Your task to perform on an android device: Check the settings for the Amazon Shopping app Image 0: 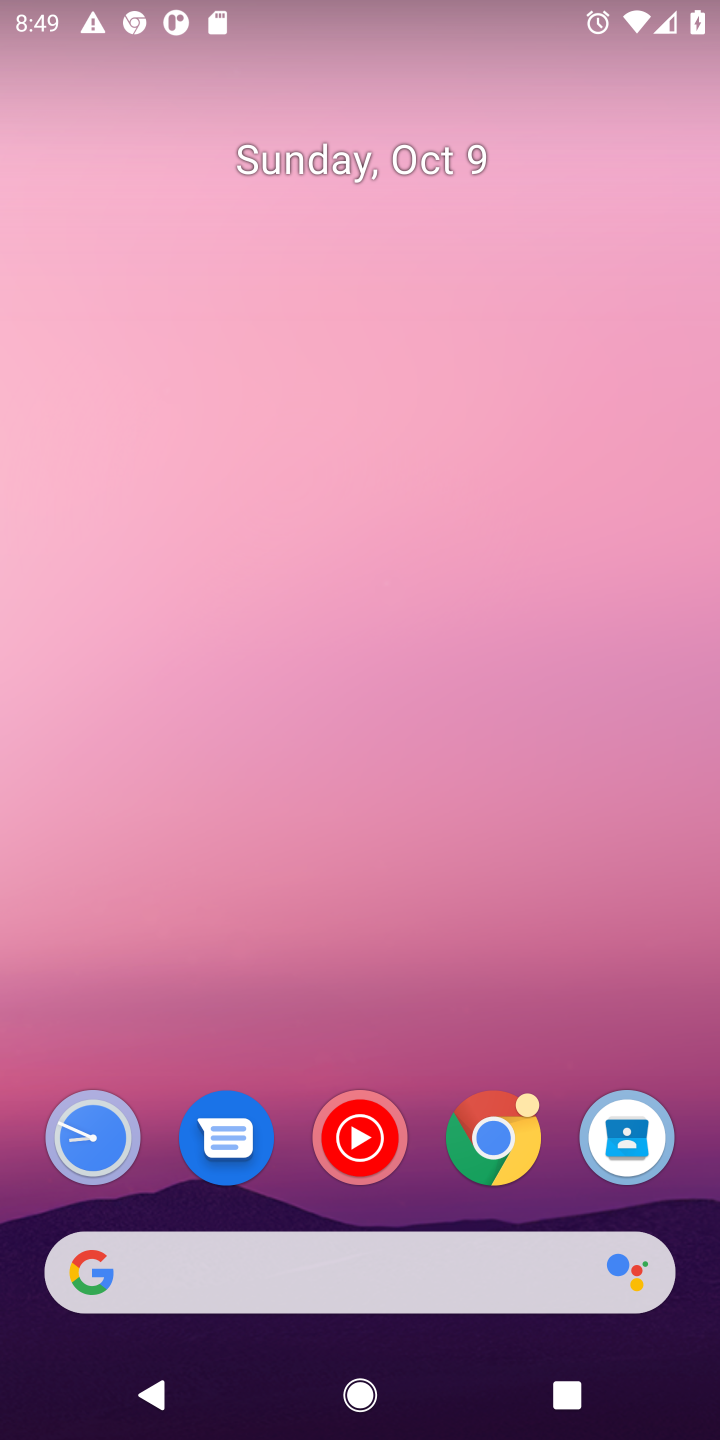
Step 0: drag from (233, 1231) to (292, 374)
Your task to perform on an android device: Check the settings for the Amazon Shopping app Image 1: 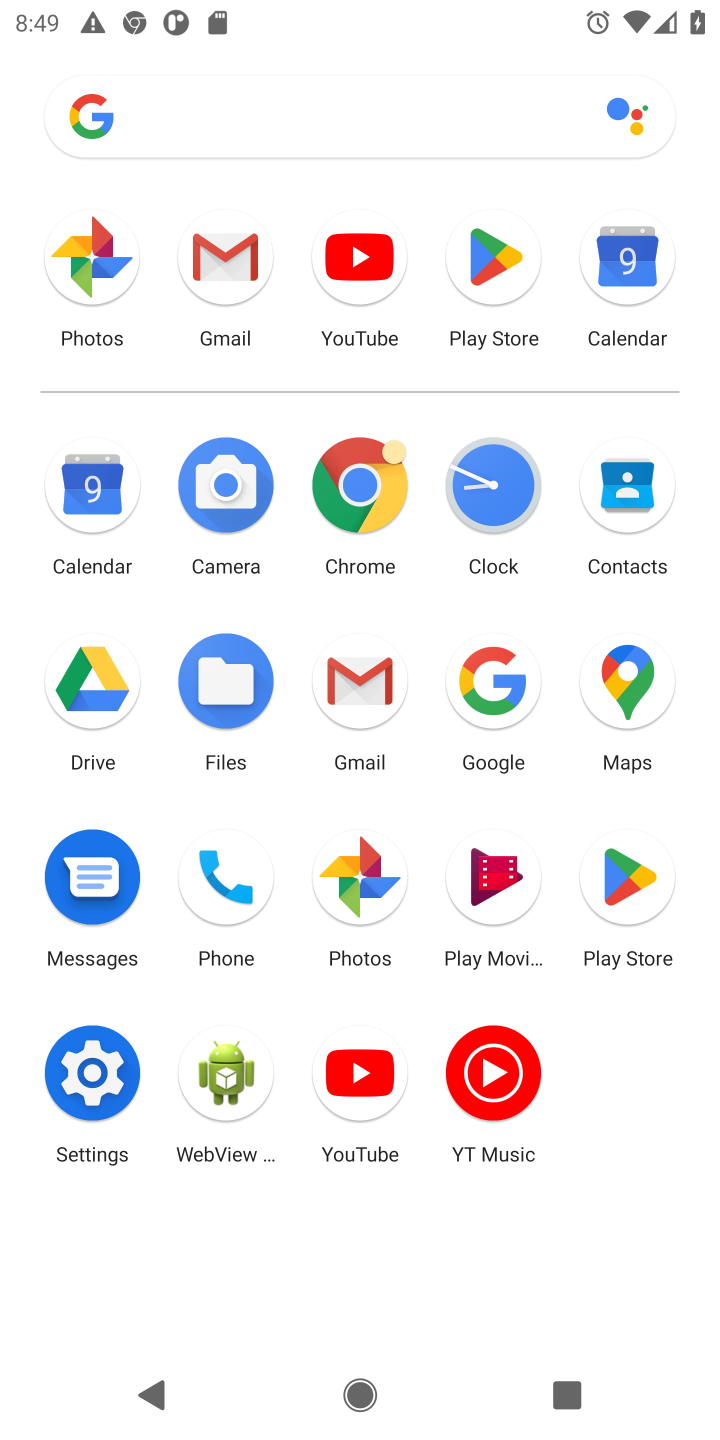
Step 1: click (479, 673)
Your task to perform on an android device: Check the settings for the Amazon Shopping app Image 2: 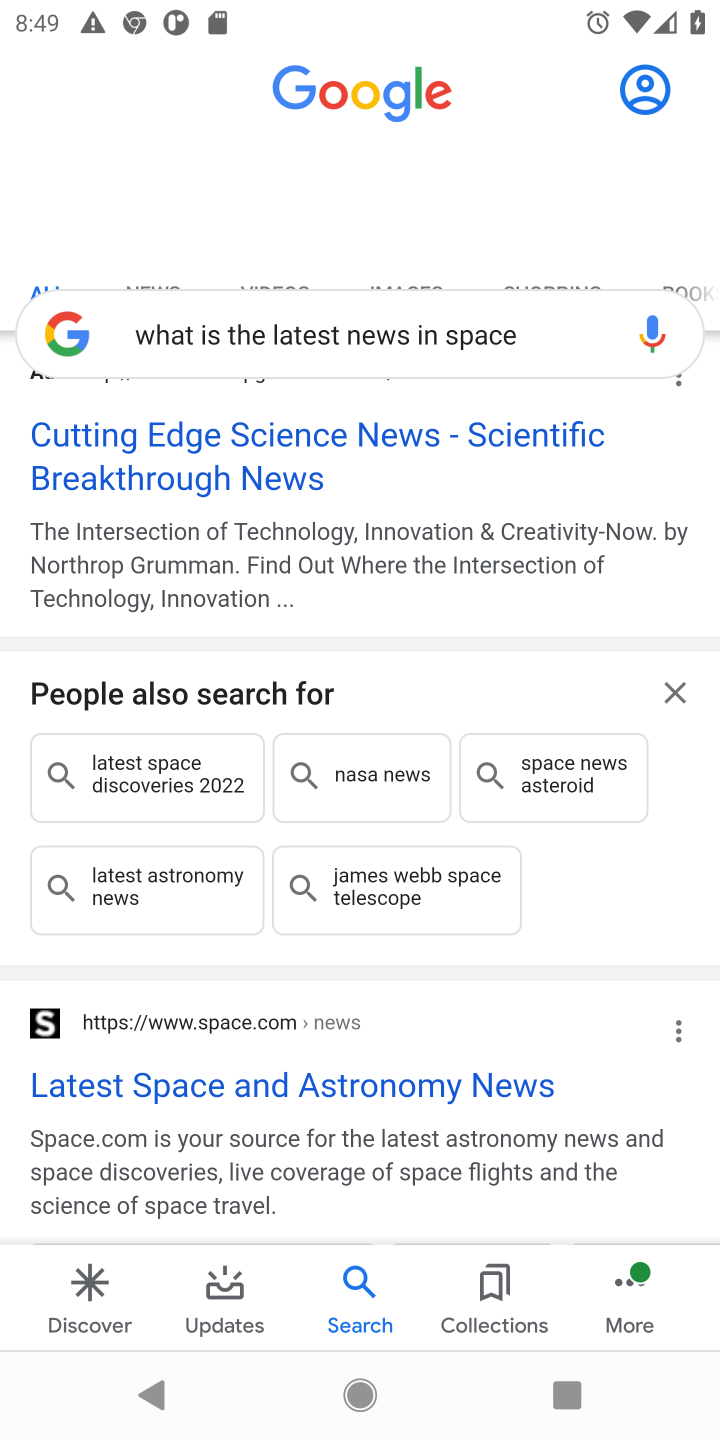
Step 2: click (395, 310)
Your task to perform on an android device: Check the settings for the Amazon Shopping app Image 3: 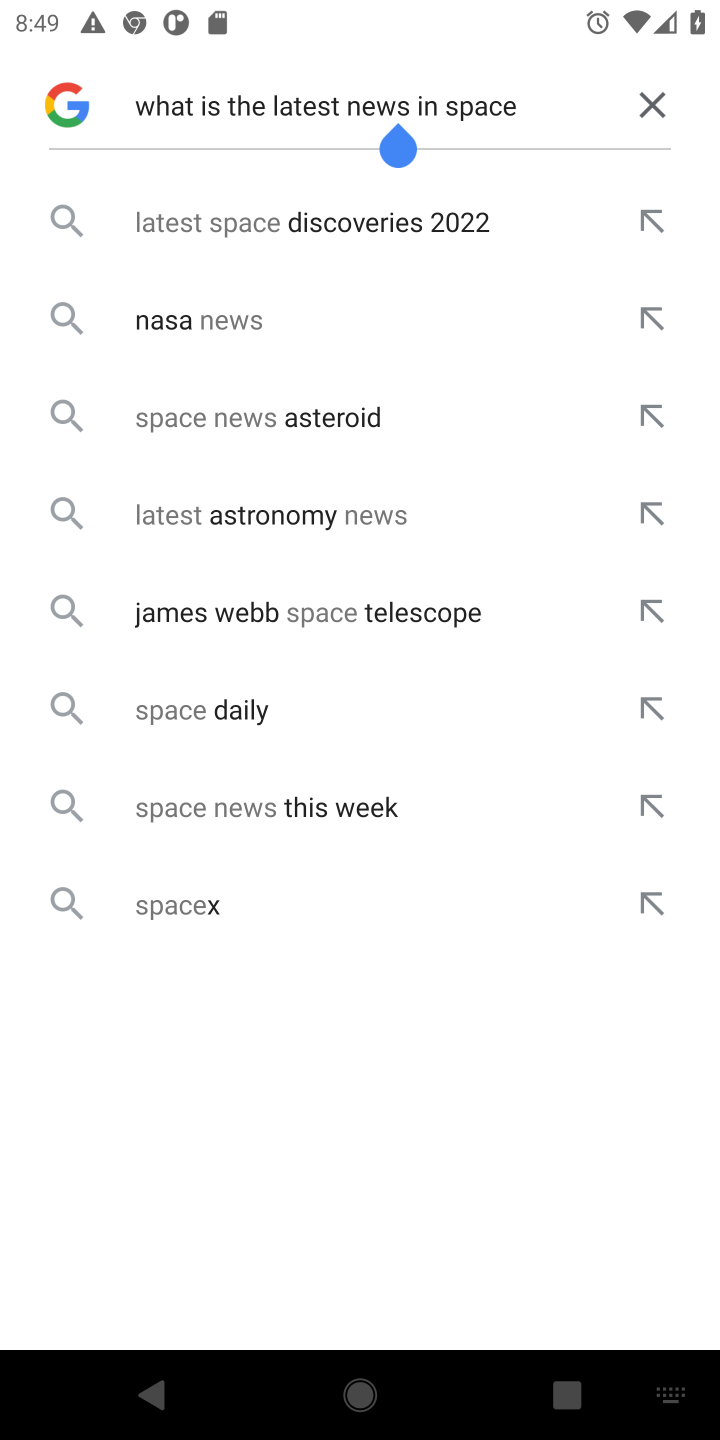
Step 3: click (643, 110)
Your task to perform on an android device: Check the settings for the Amazon Shopping app Image 4: 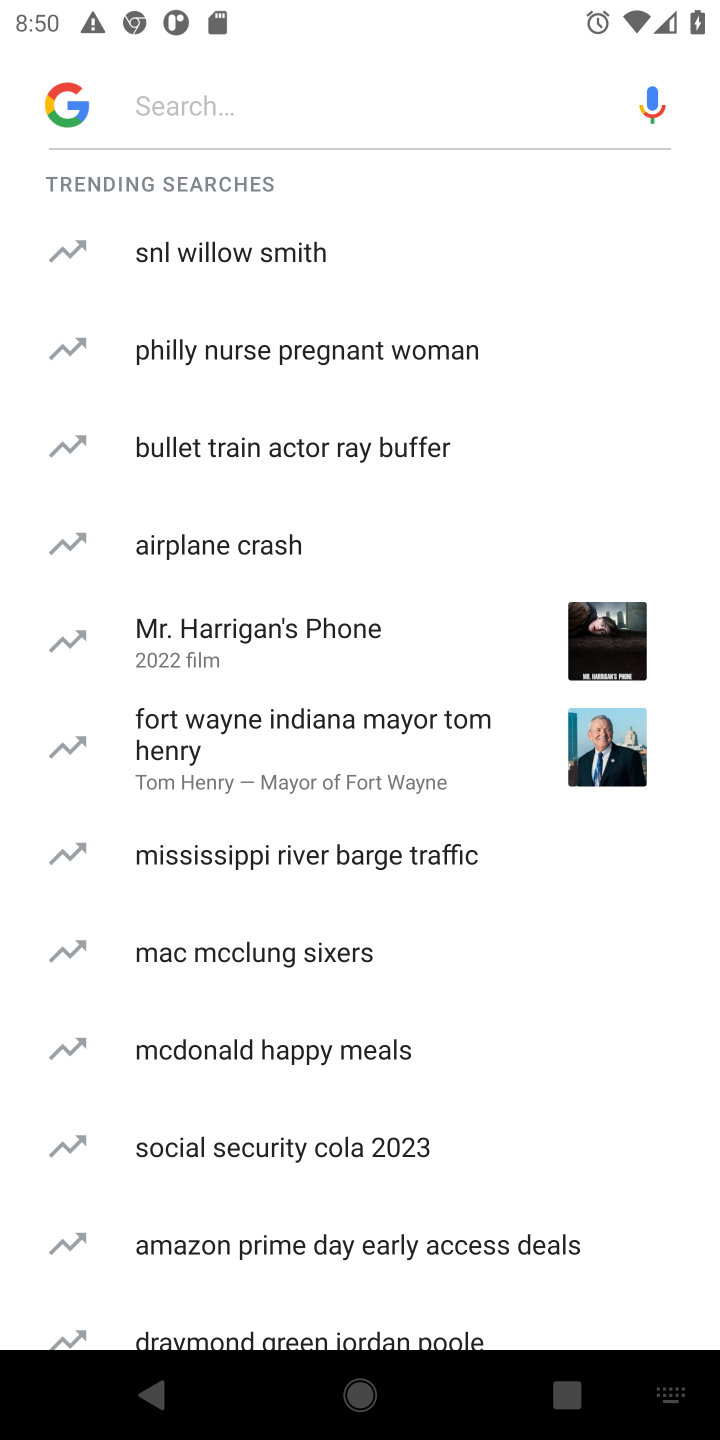
Step 4: click (304, 99)
Your task to perform on an android device: Check the settings for the Amazon Shopping app Image 5: 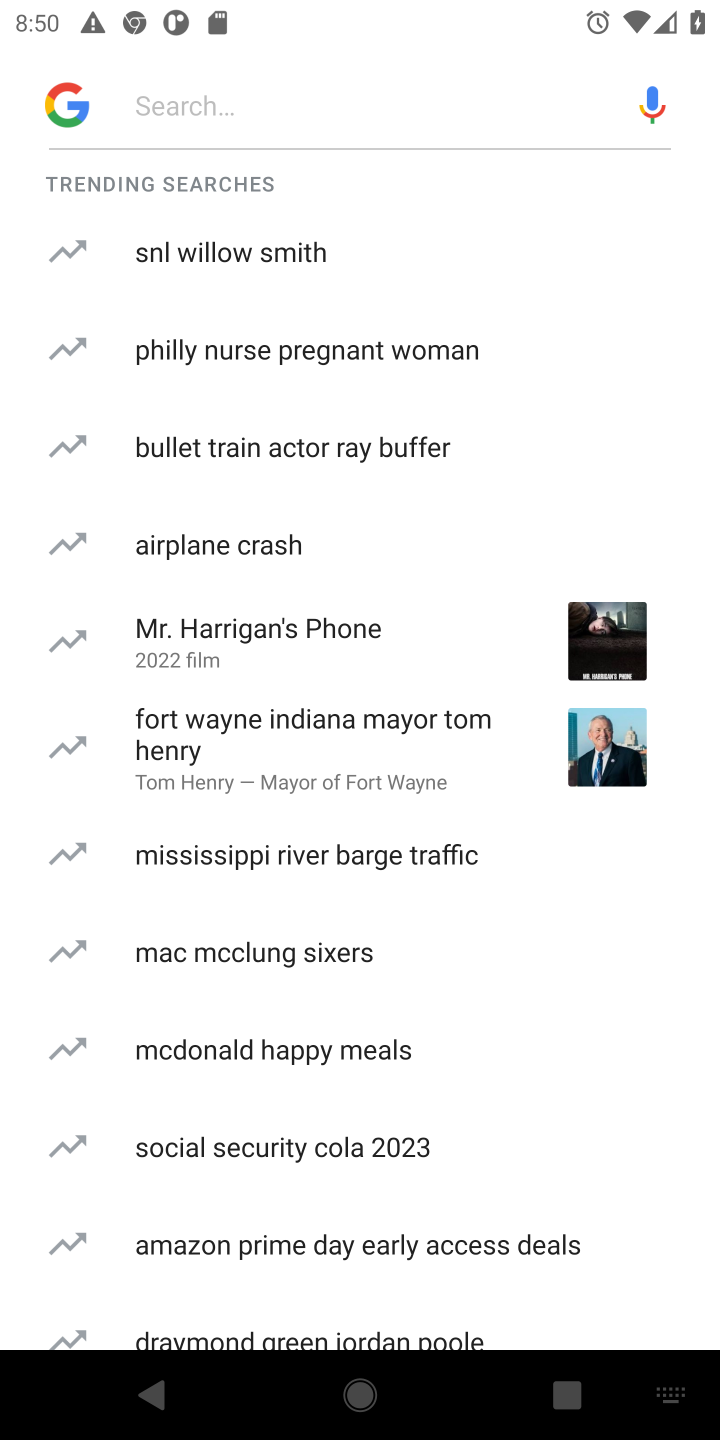
Step 5: type "Check the settings for the Amazon Shopping app "
Your task to perform on an android device: Check the settings for the Amazon Shopping app Image 6: 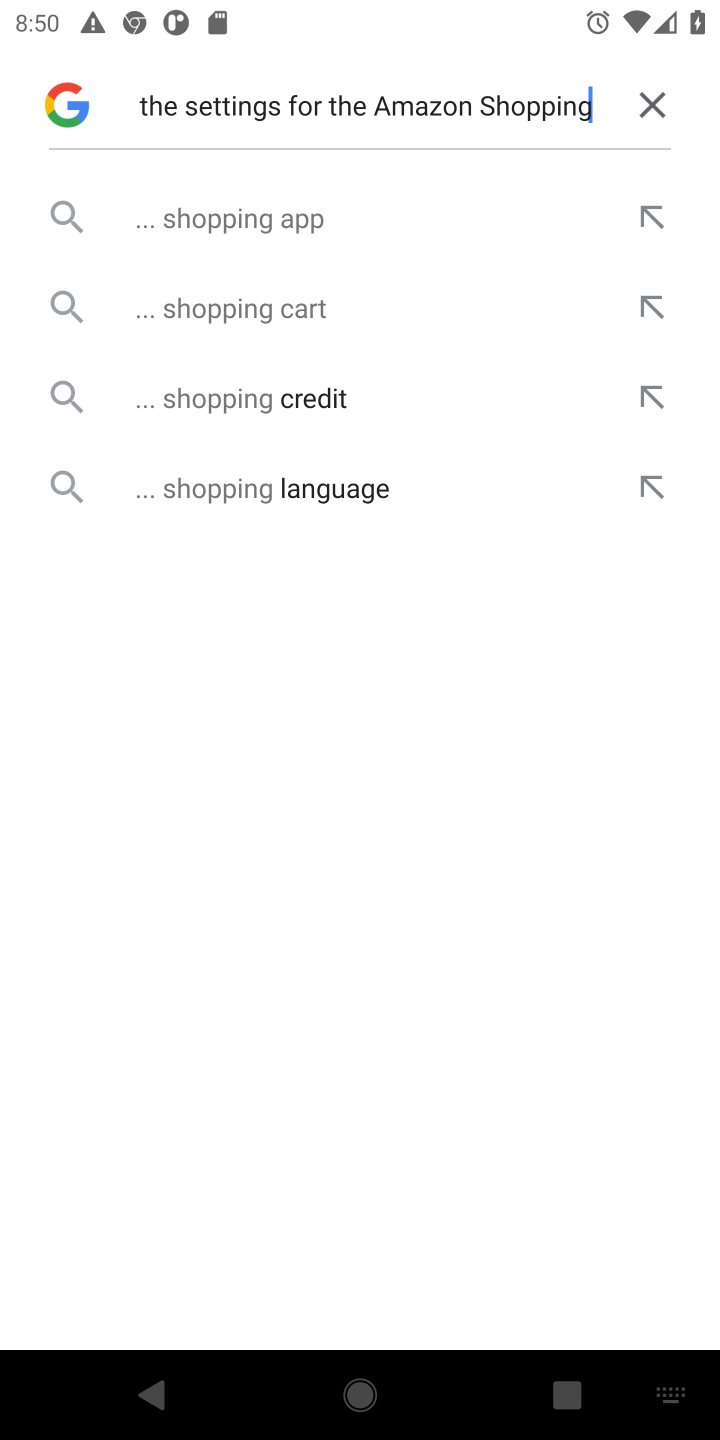
Step 6: click (240, 207)
Your task to perform on an android device: Check the settings for the Amazon Shopping app Image 7: 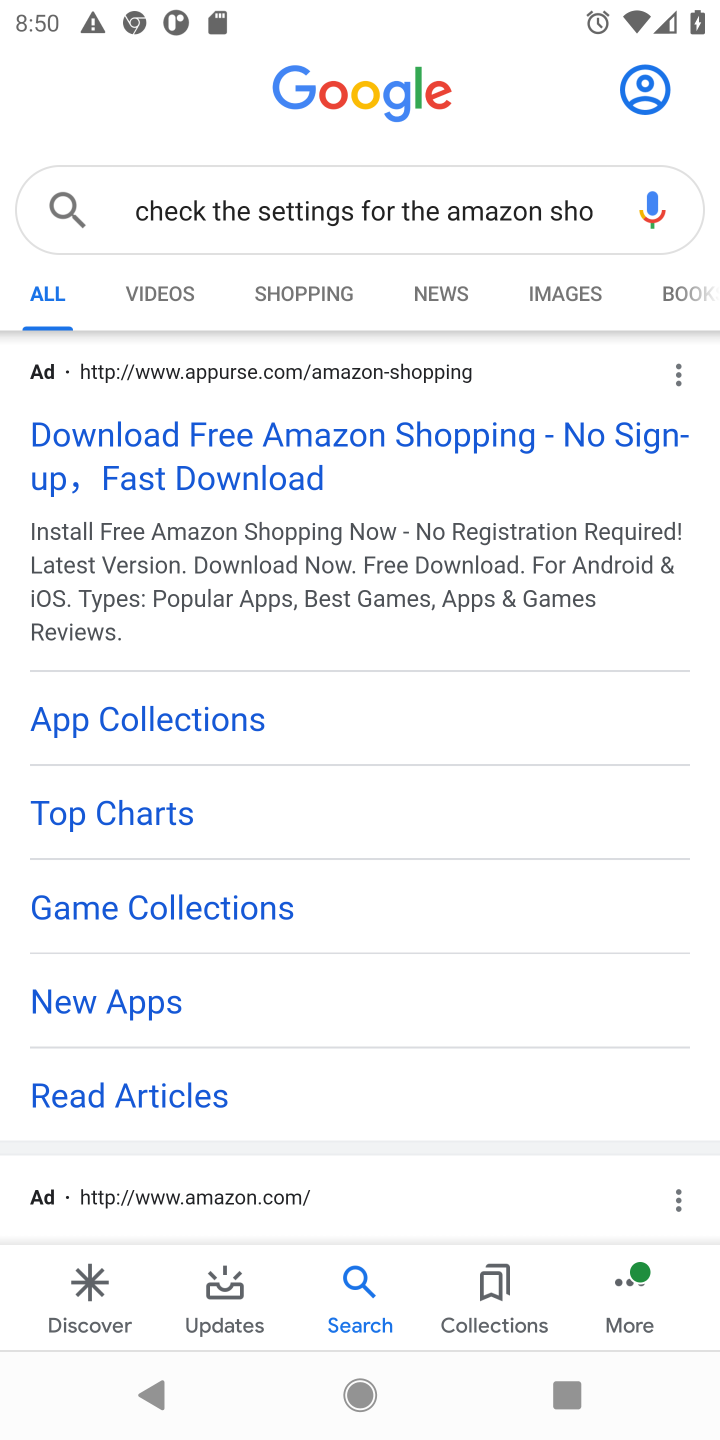
Step 7: click (232, 456)
Your task to perform on an android device: Check the settings for the Amazon Shopping app Image 8: 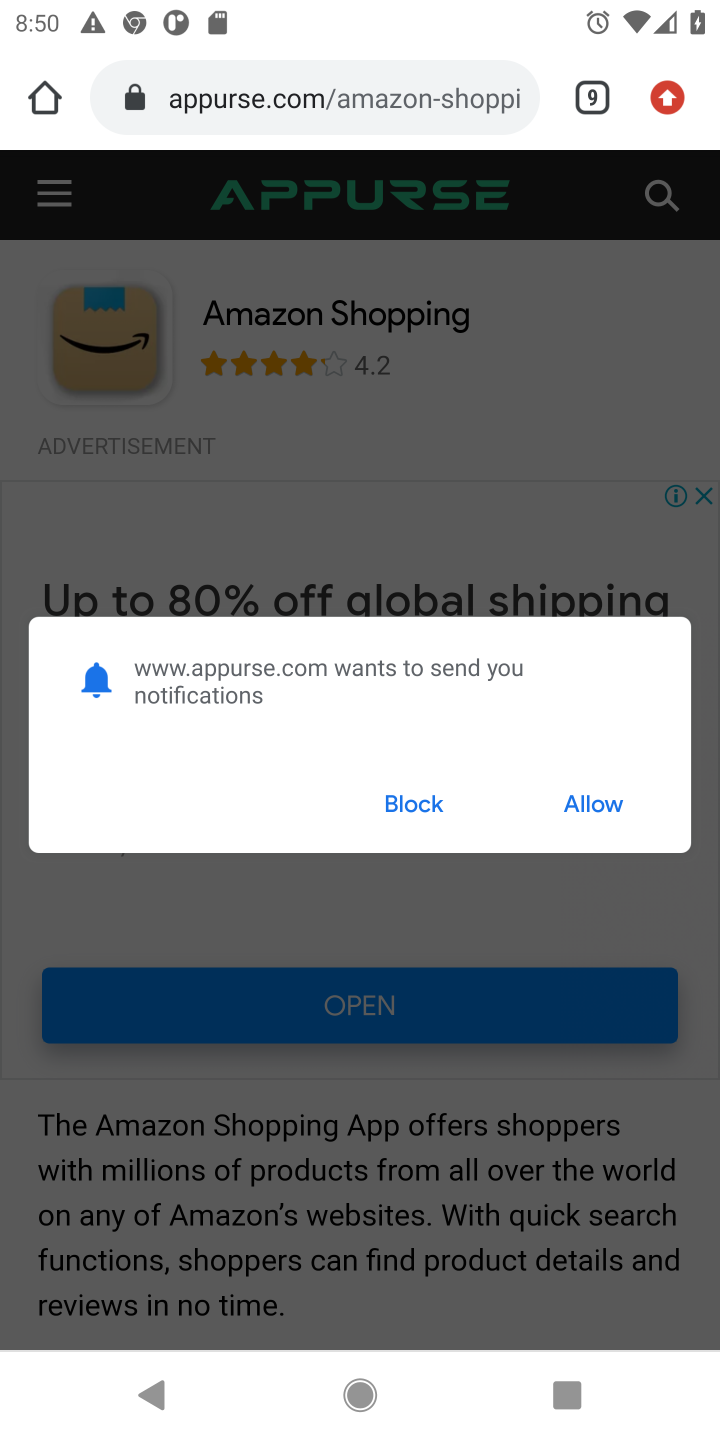
Step 8: click (595, 790)
Your task to perform on an android device: Check the settings for the Amazon Shopping app Image 9: 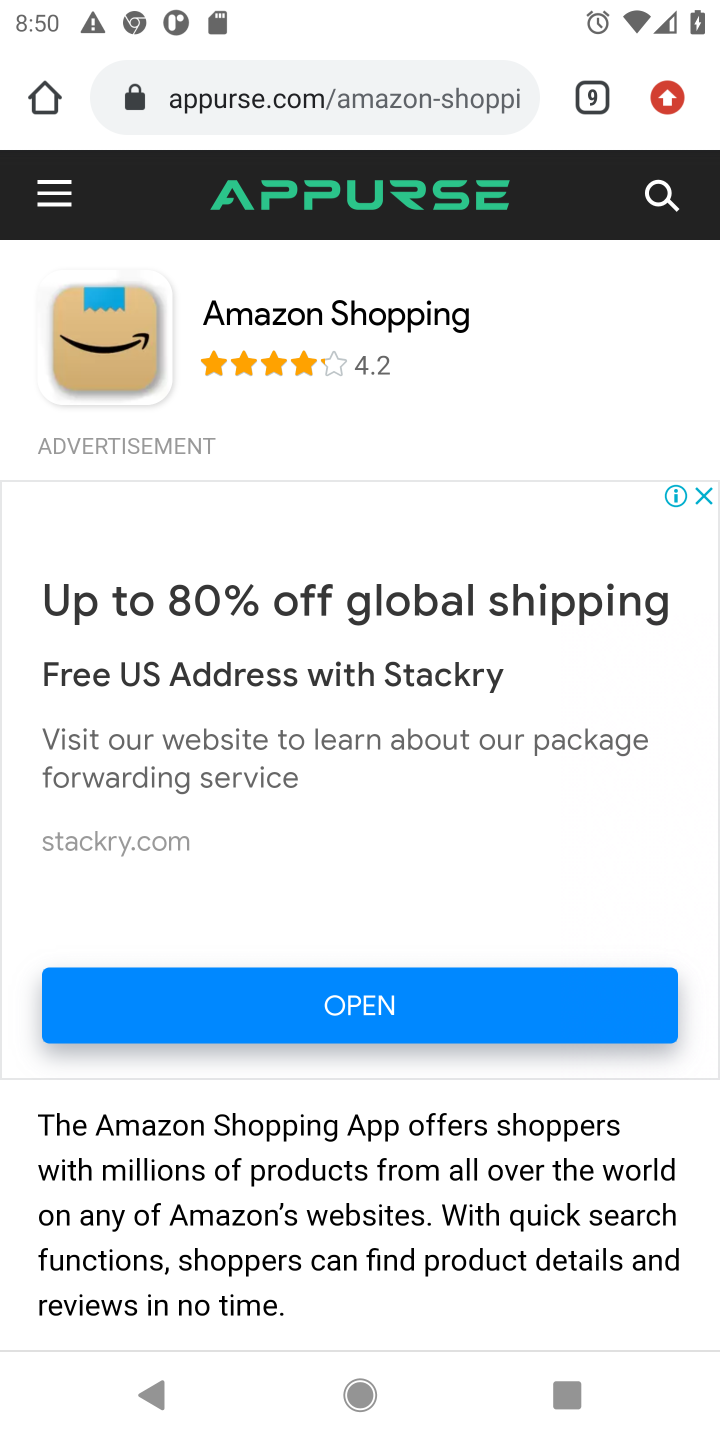
Step 9: click (331, 985)
Your task to perform on an android device: Check the settings for the Amazon Shopping app Image 10: 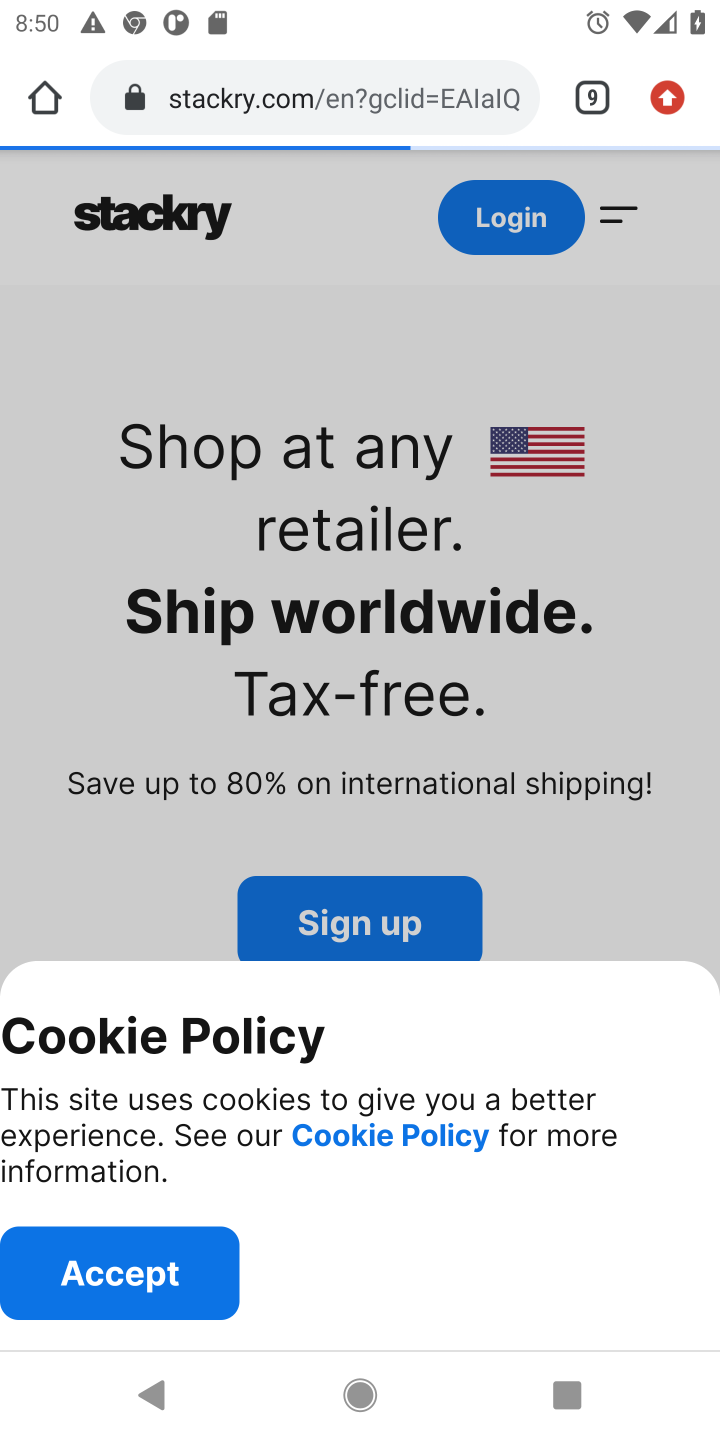
Step 10: click (169, 1254)
Your task to perform on an android device: Check the settings for the Amazon Shopping app Image 11: 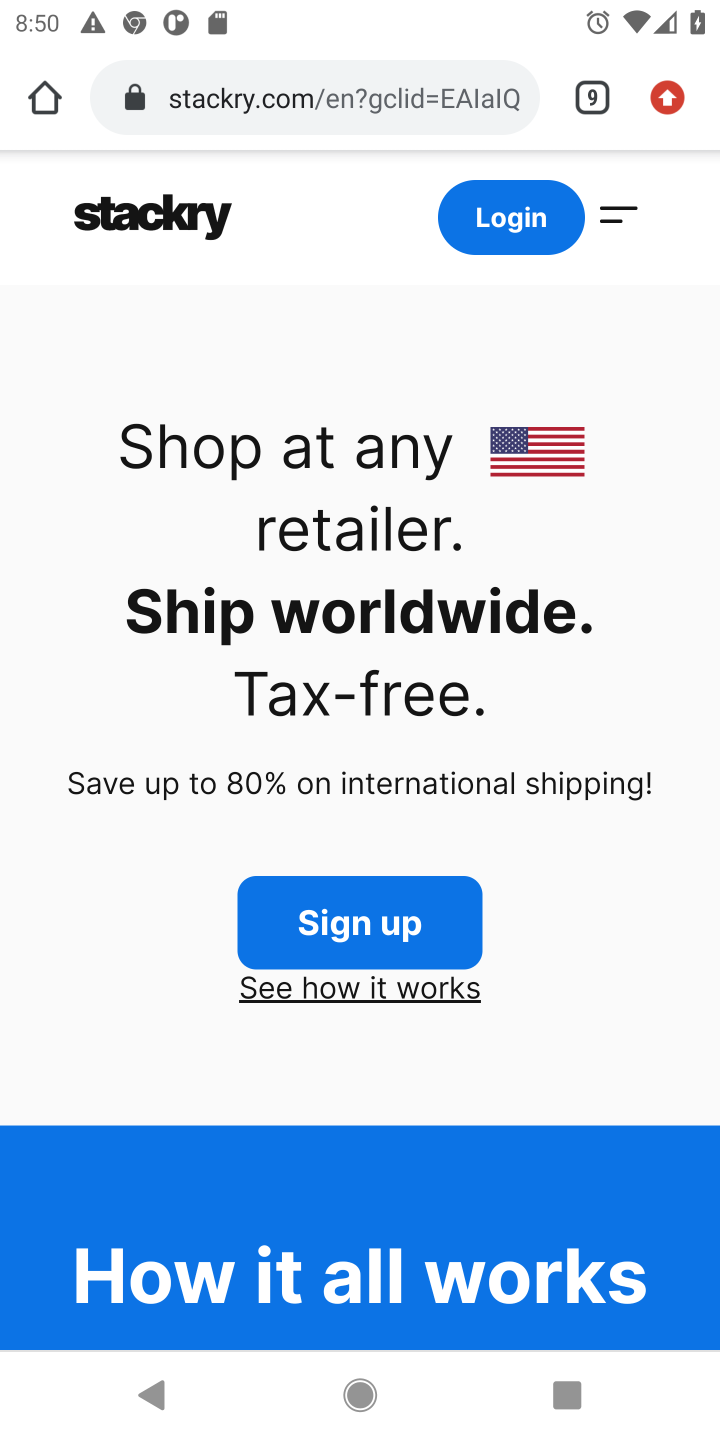
Step 11: drag from (462, 1109) to (532, 295)
Your task to perform on an android device: Check the settings for the Amazon Shopping app Image 12: 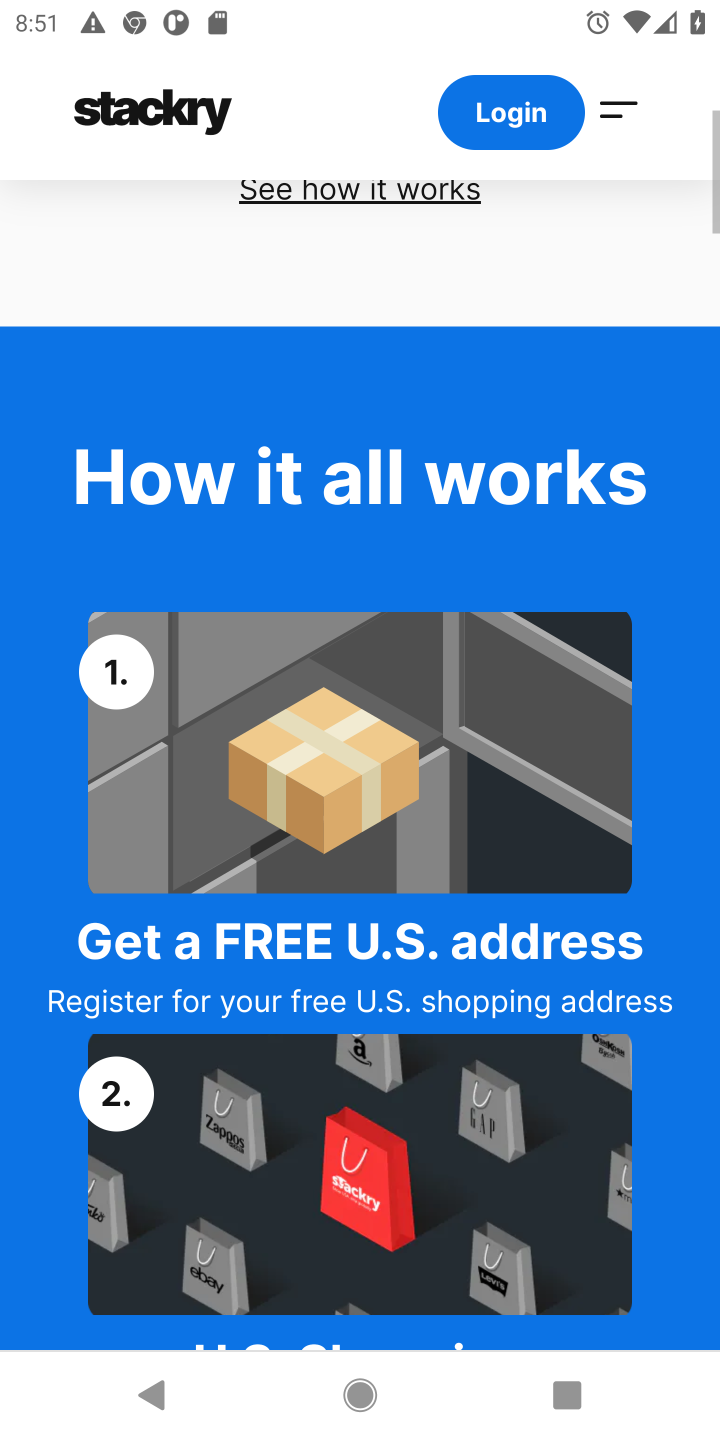
Step 12: drag from (337, 1124) to (439, 464)
Your task to perform on an android device: Check the settings for the Amazon Shopping app Image 13: 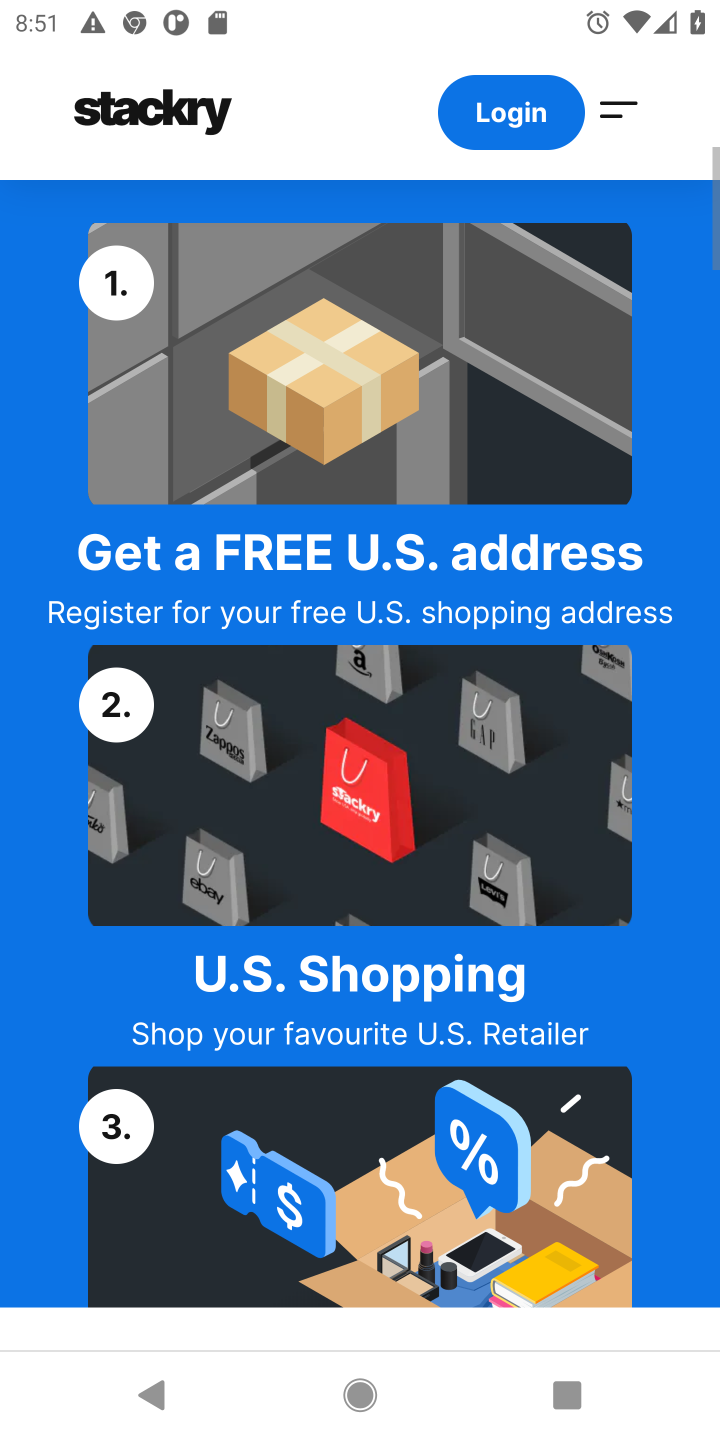
Step 13: drag from (277, 1035) to (375, 546)
Your task to perform on an android device: Check the settings for the Amazon Shopping app Image 14: 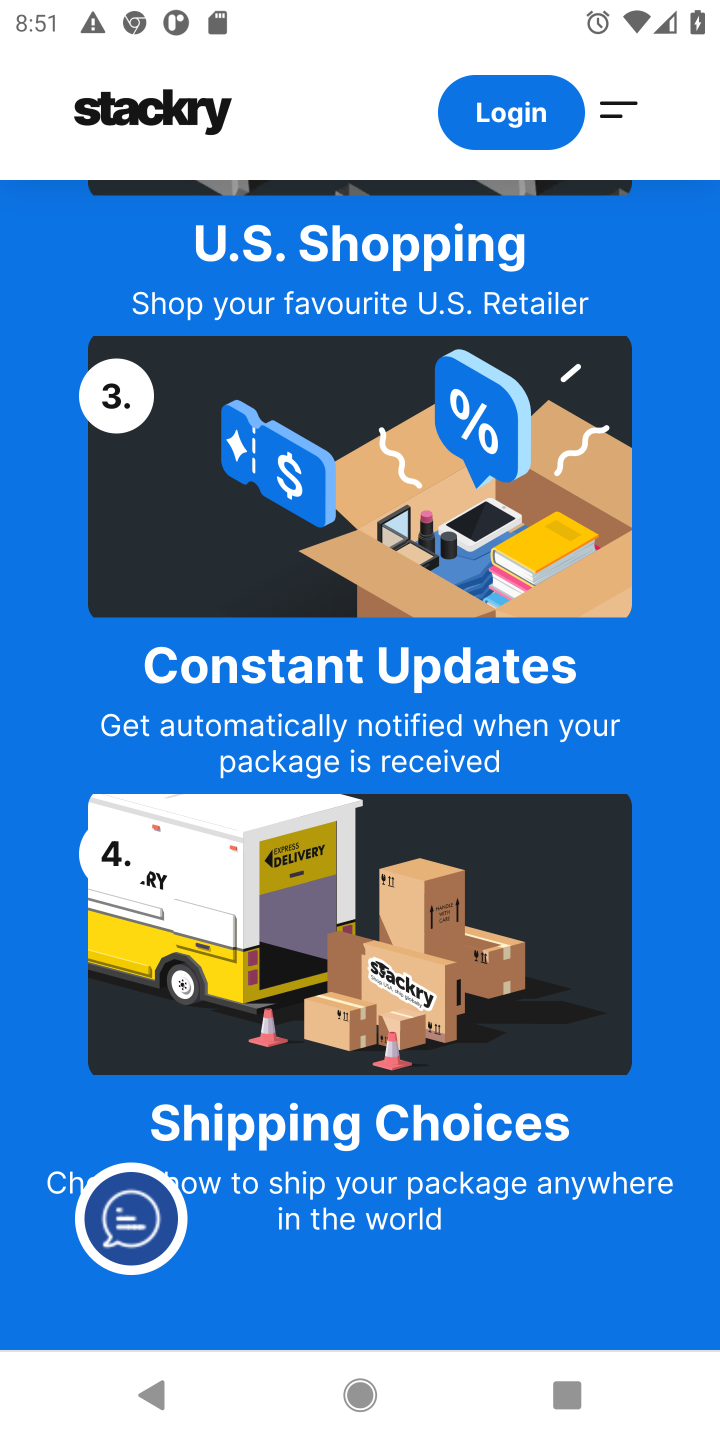
Step 14: press back button
Your task to perform on an android device: Check the settings for the Amazon Shopping app Image 15: 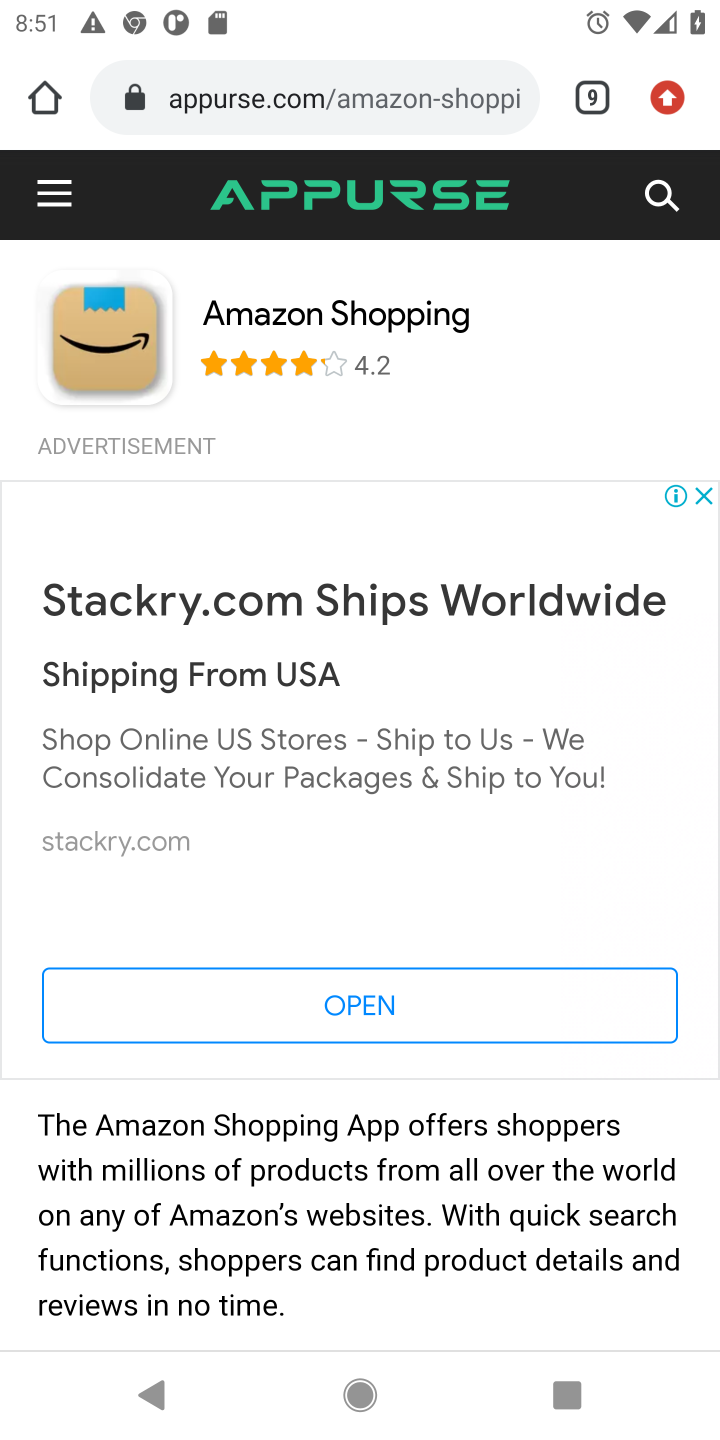
Step 15: drag from (367, 1181) to (526, 269)
Your task to perform on an android device: Check the settings for the Amazon Shopping app Image 16: 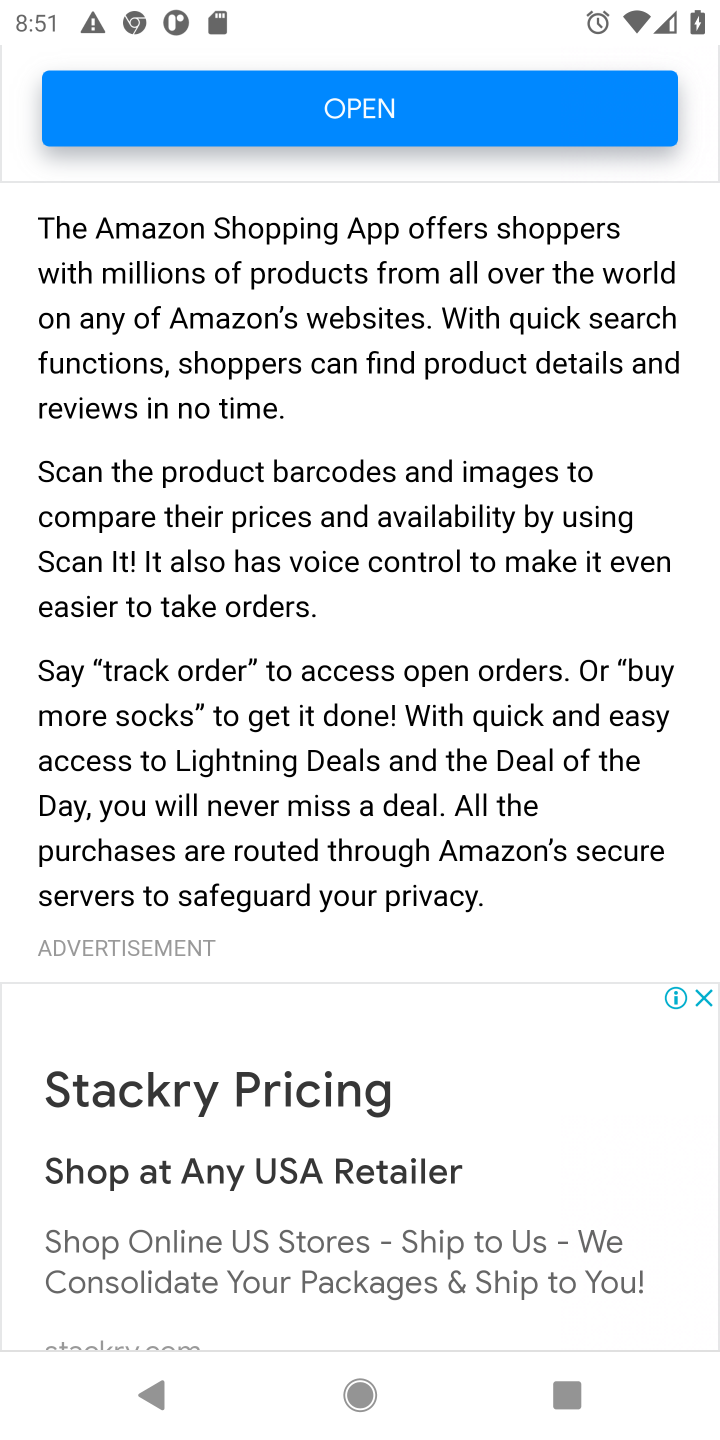
Step 16: press back button
Your task to perform on an android device: Check the settings for the Amazon Shopping app Image 17: 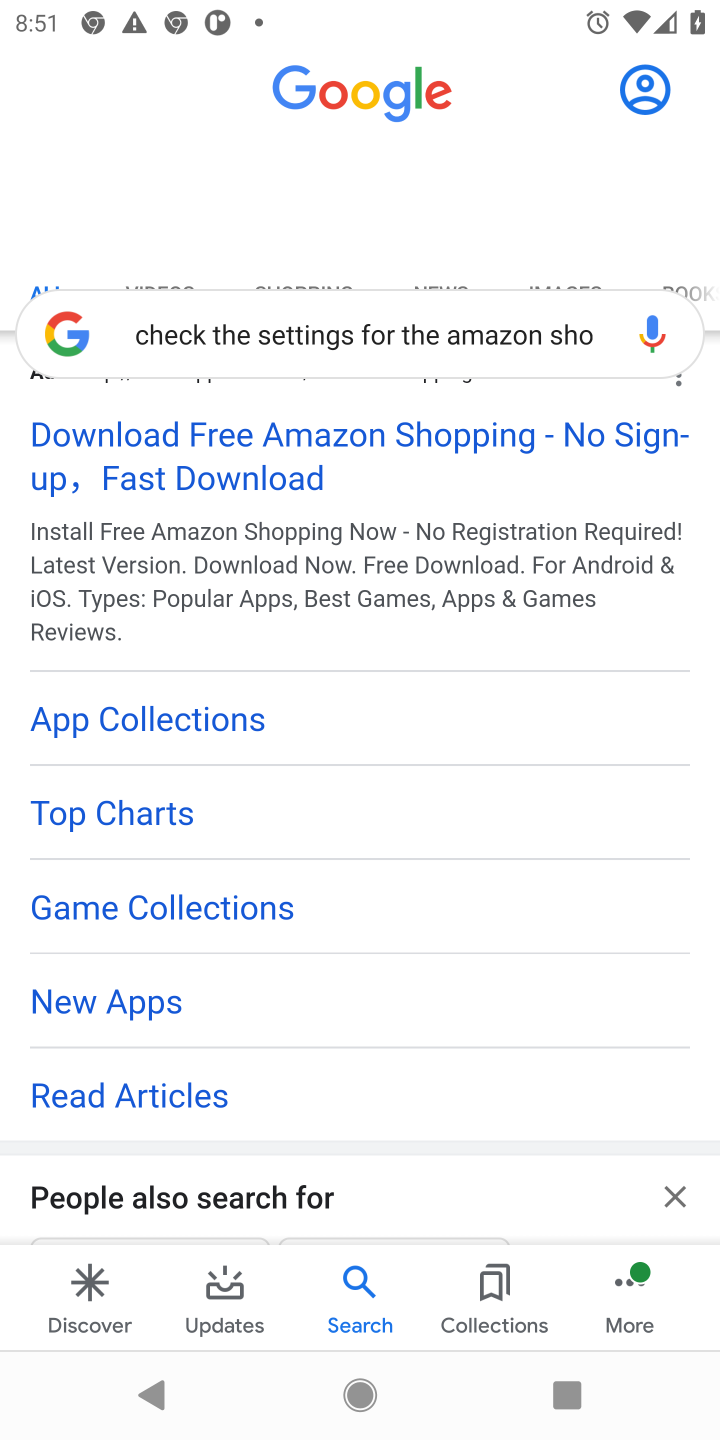
Step 17: drag from (301, 1180) to (460, 363)
Your task to perform on an android device: Check the settings for the Amazon Shopping app Image 18: 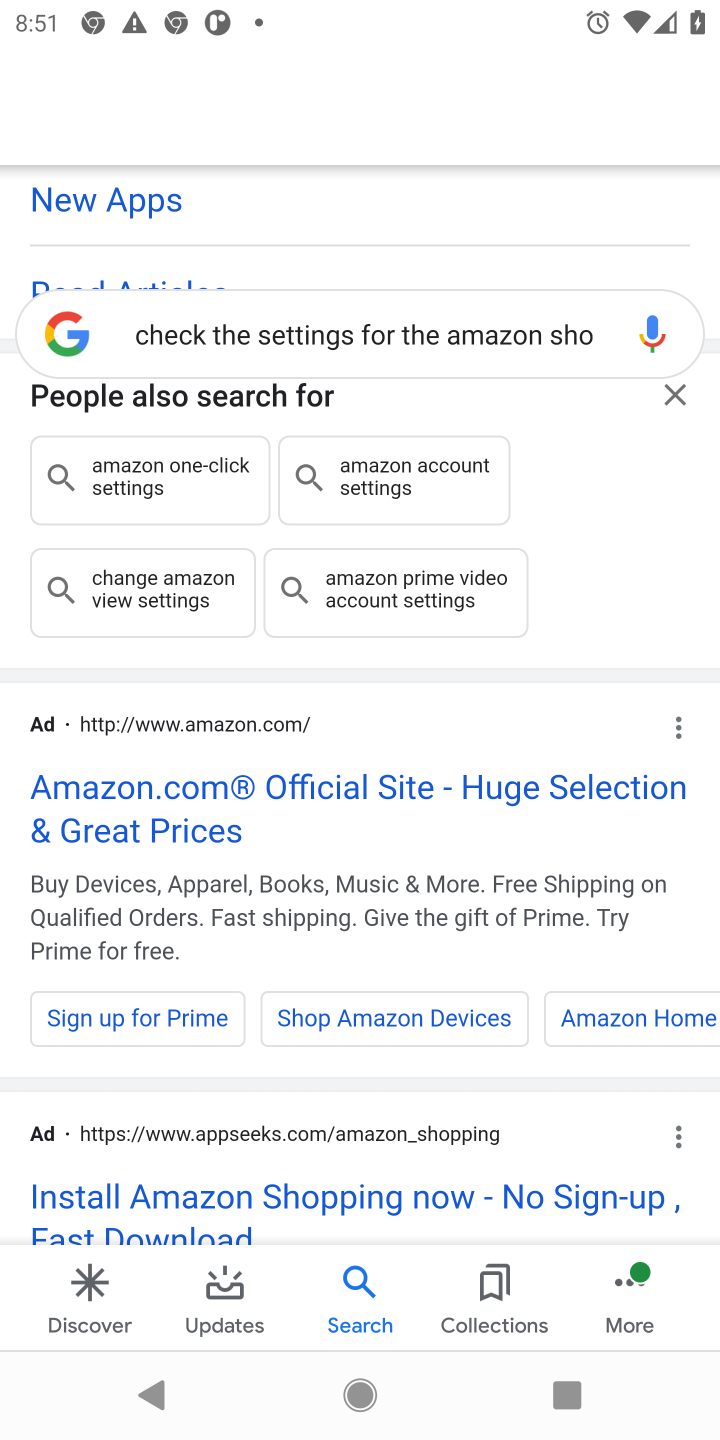
Step 18: drag from (249, 1169) to (329, 694)
Your task to perform on an android device: Check the settings for the Amazon Shopping app Image 19: 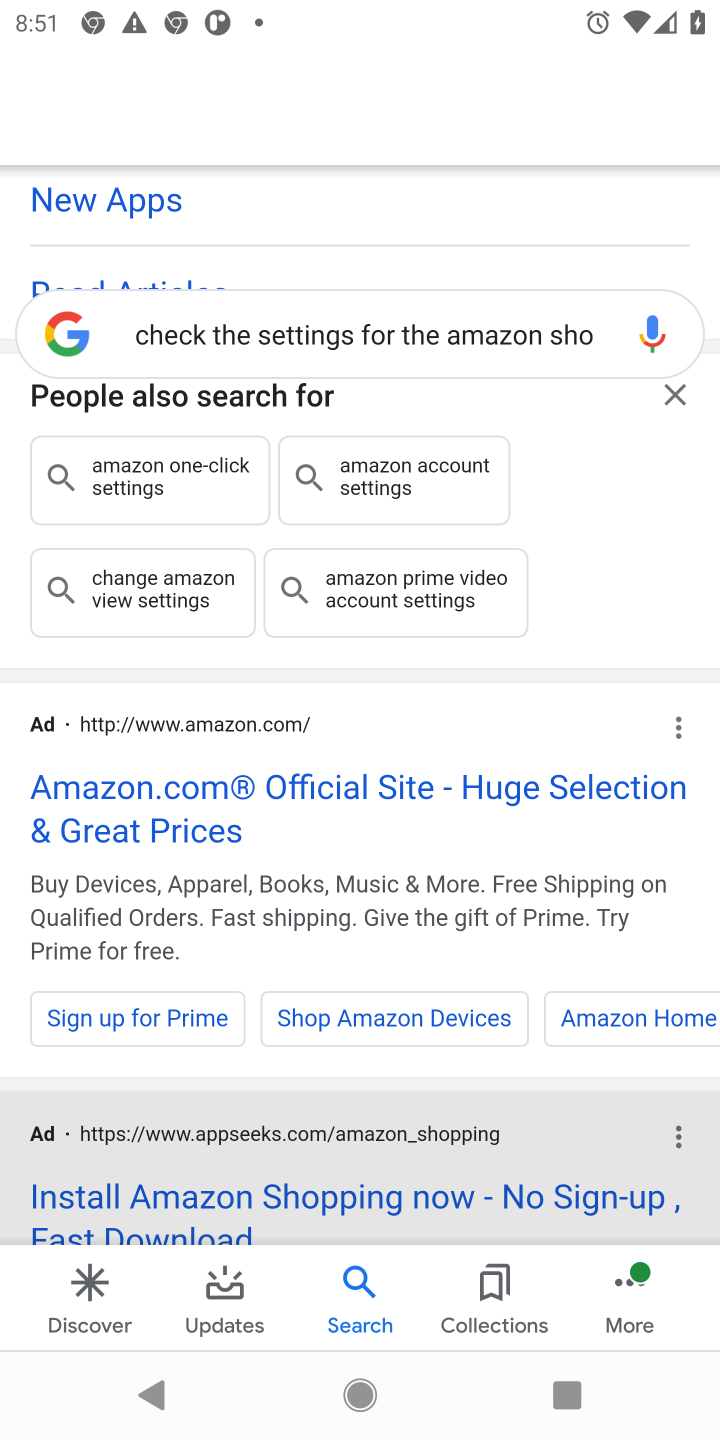
Step 19: drag from (327, 911) to (350, 789)
Your task to perform on an android device: Check the settings for the Amazon Shopping app Image 20: 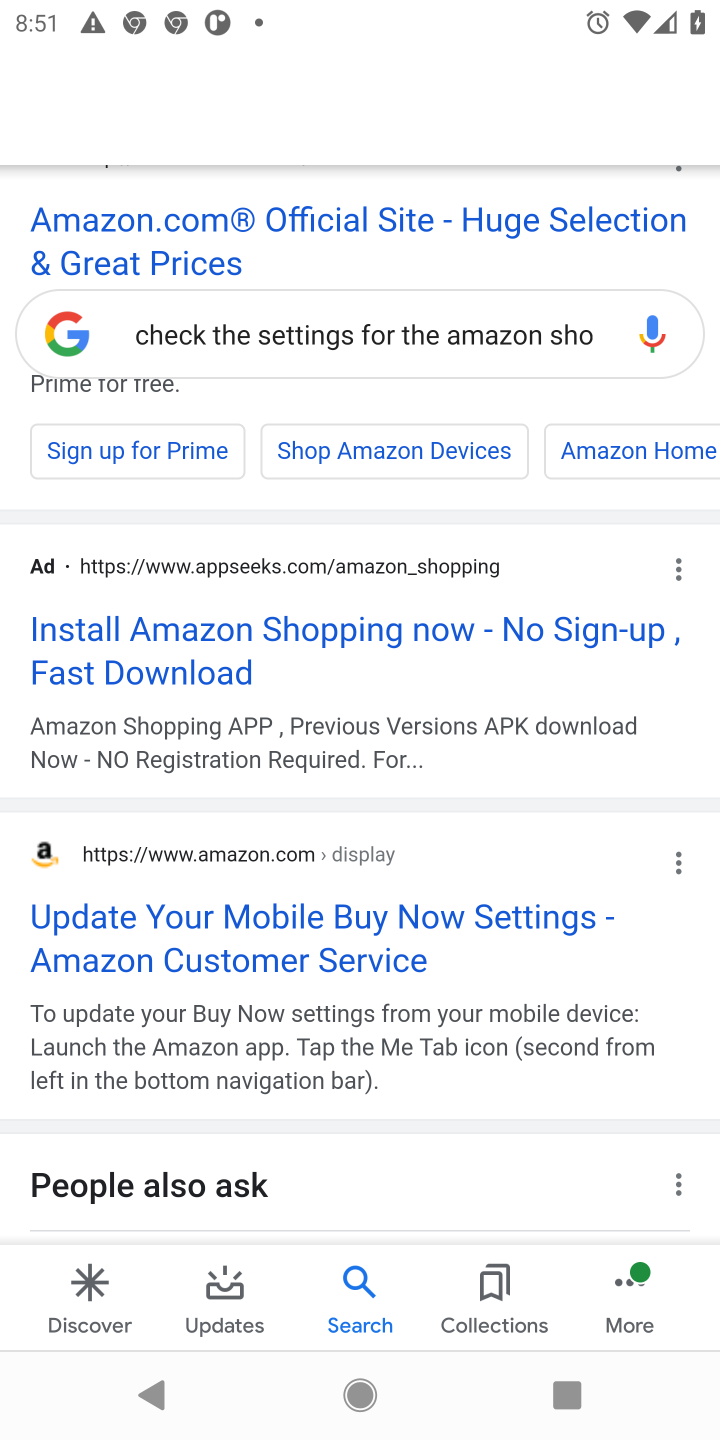
Step 20: click (180, 655)
Your task to perform on an android device: Check the settings for the Amazon Shopping app Image 21: 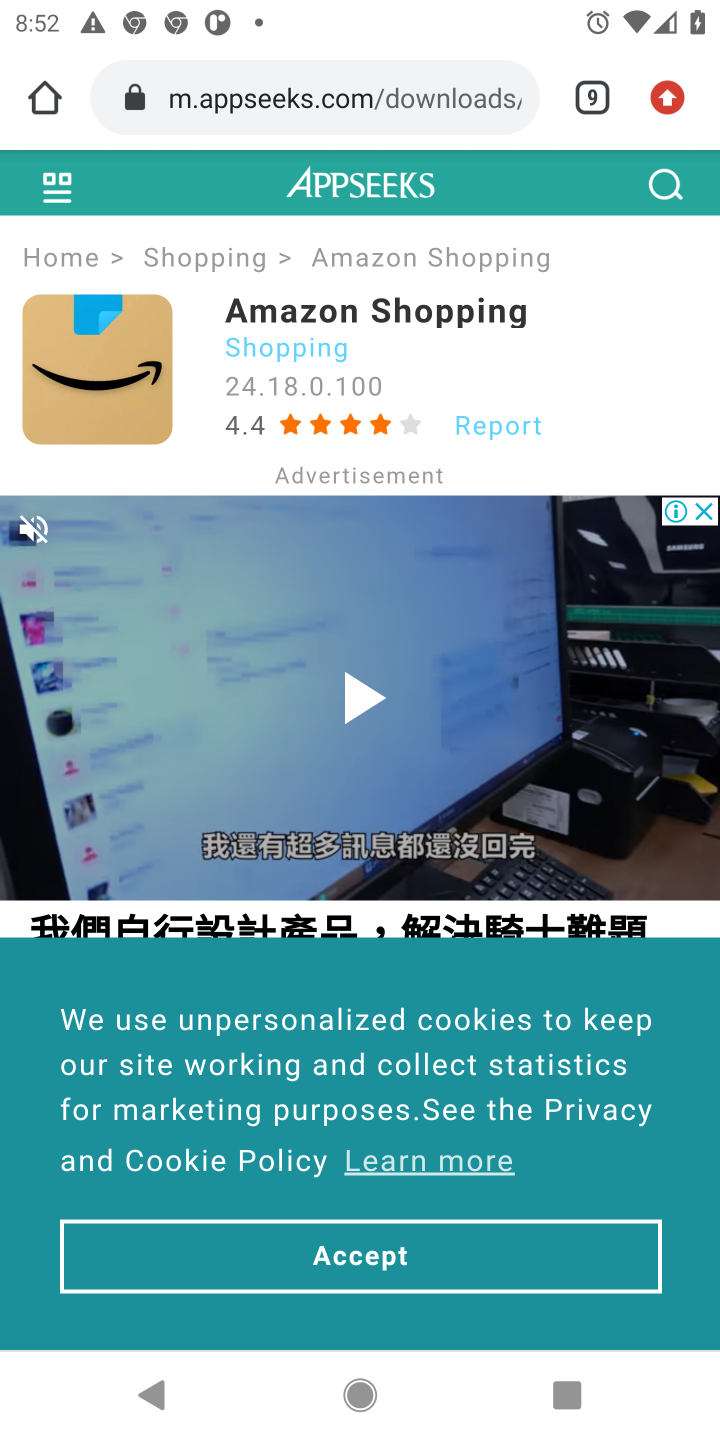
Step 21: click (361, 1275)
Your task to perform on an android device: Check the settings for the Amazon Shopping app Image 22: 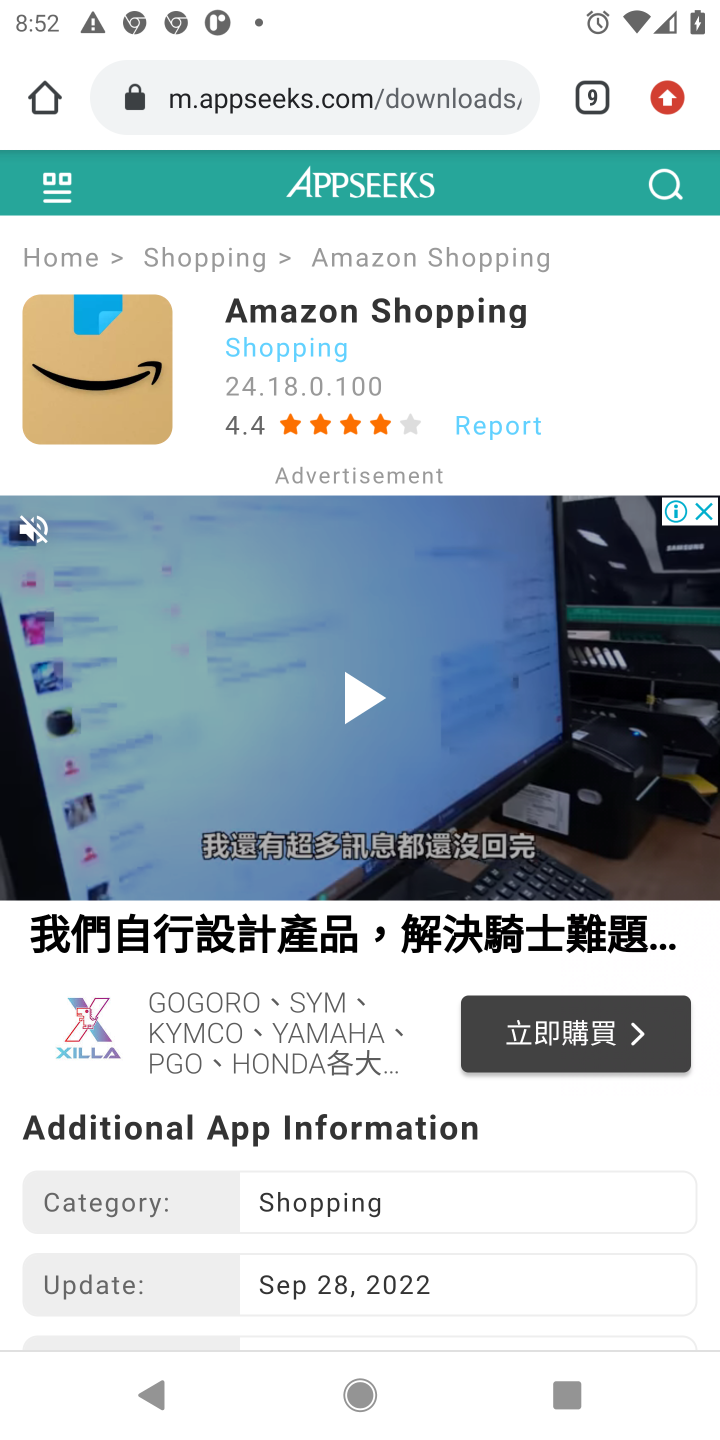
Step 22: task complete